Your task to perform on an android device: Go to sound settings Image 0: 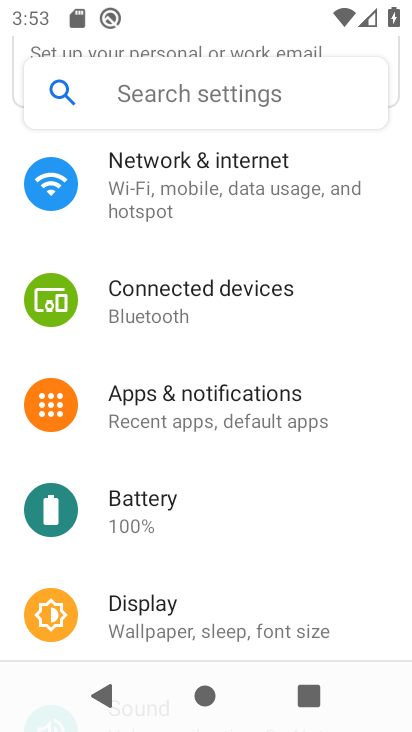
Step 0: drag from (146, 608) to (272, 217)
Your task to perform on an android device: Go to sound settings Image 1: 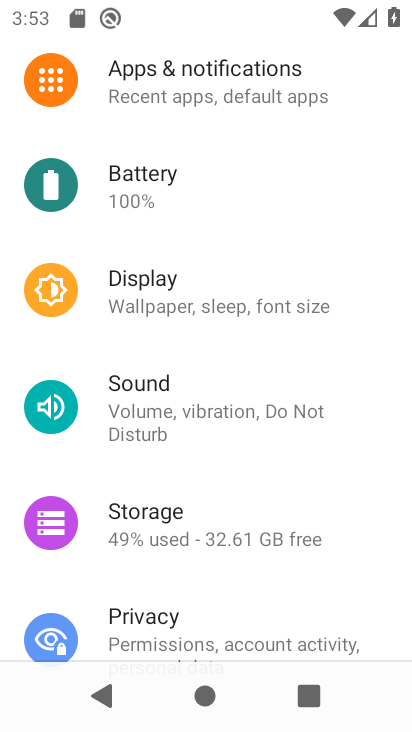
Step 1: click (153, 395)
Your task to perform on an android device: Go to sound settings Image 2: 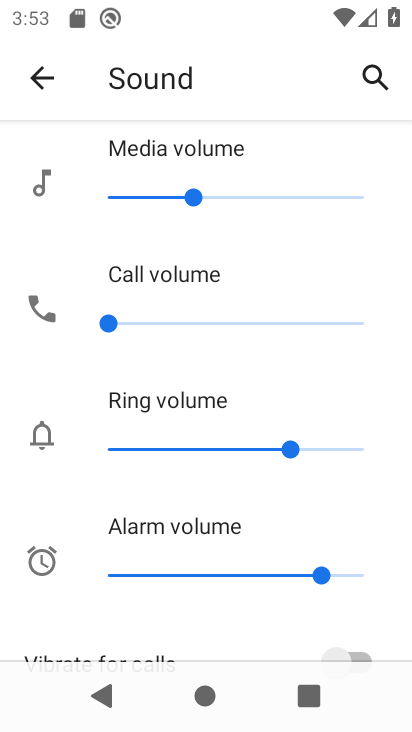
Step 2: task complete